Your task to perform on an android device: set default search engine in the chrome app Image 0: 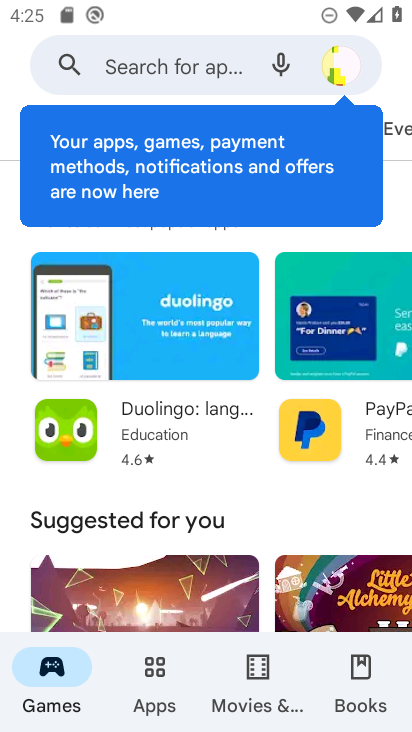
Step 0: press home button
Your task to perform on an android device: set default search engine in the chrome app Image 1: 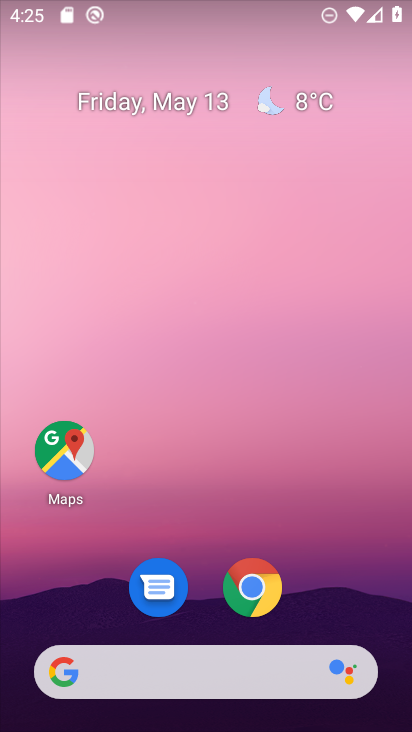
Step 1: click (248, 573)
Your task to perform on an android device: set default search engine in the chrome app Image 2: 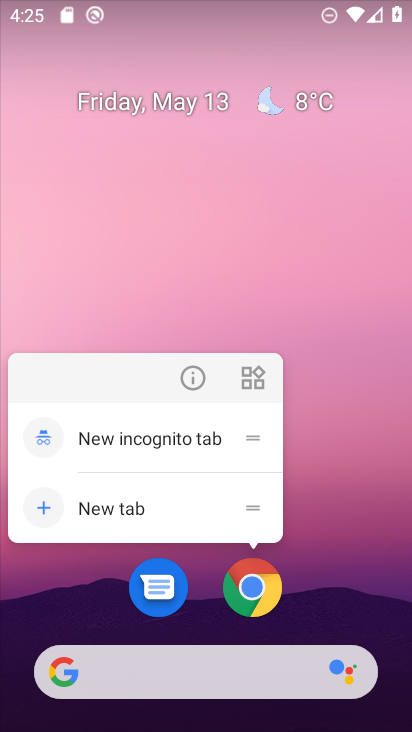
Step 2: click (249, 574)
Your task to perform on an android device: set default search engine in the chrome app Image 3: 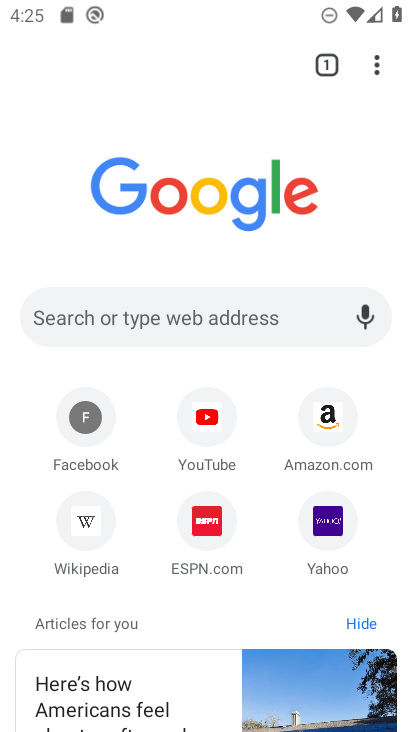
Step 3: drag from (365, 64) to (182, 548)
Your task to perform on an android device: set default search engine in the chrome app Image 4: 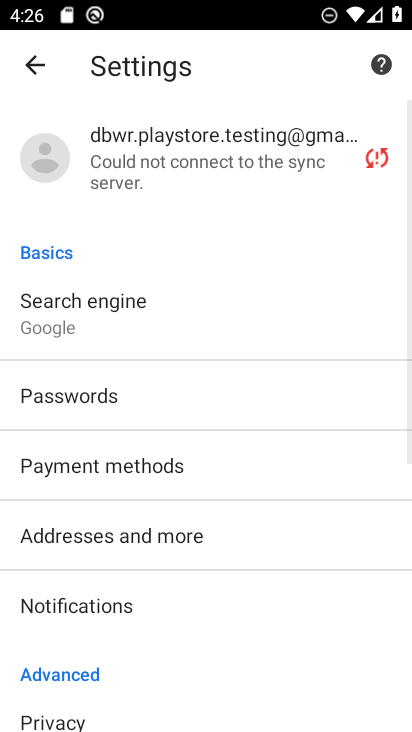
Step 4: click (124, 302)
Your task to perform on an android device: set default search engine in the chrome app Image 5: 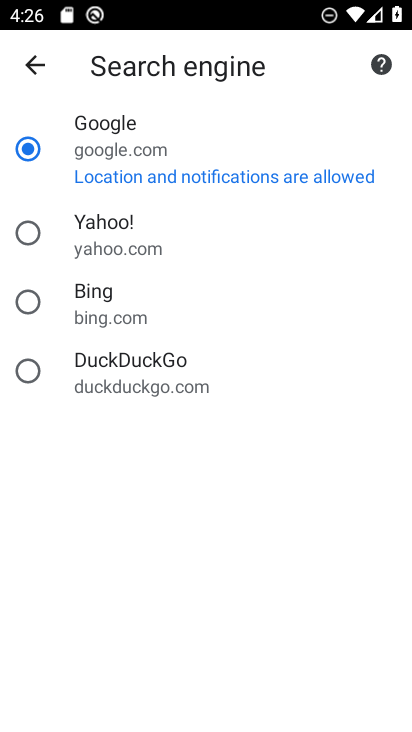
Step 5: click (70, 286)
Your task to perform on an android device: set default search engine in the chrome app Image 6: 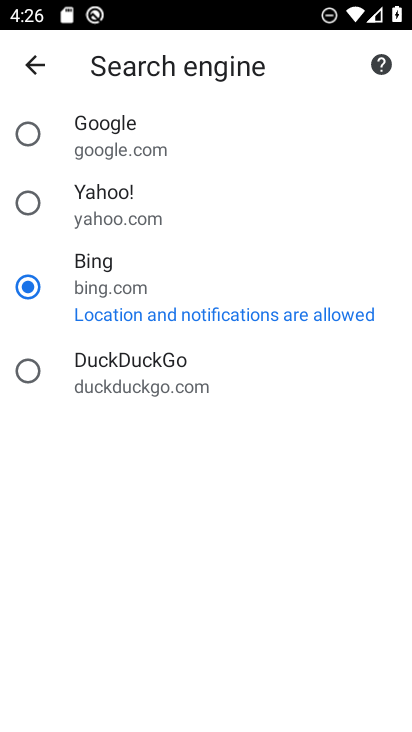
Step 6: task complete